Your task to perform on an android device: delete a single message in the gmail app Image 0: 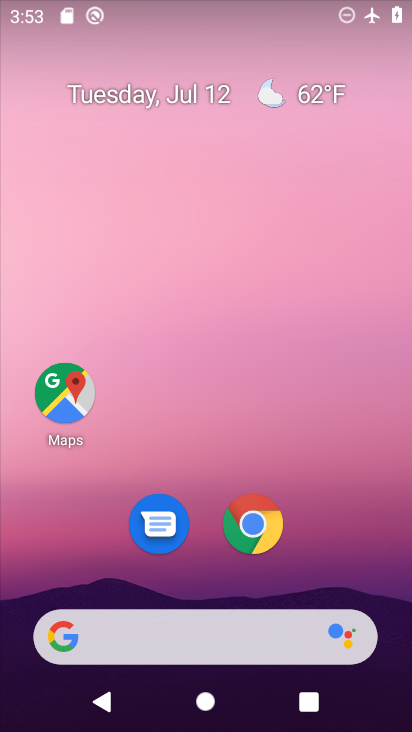
Step 0: drag from (327, 521) to (279, 0)
Your task to perform on an android device: delete a single message in the gmail app Image 1: 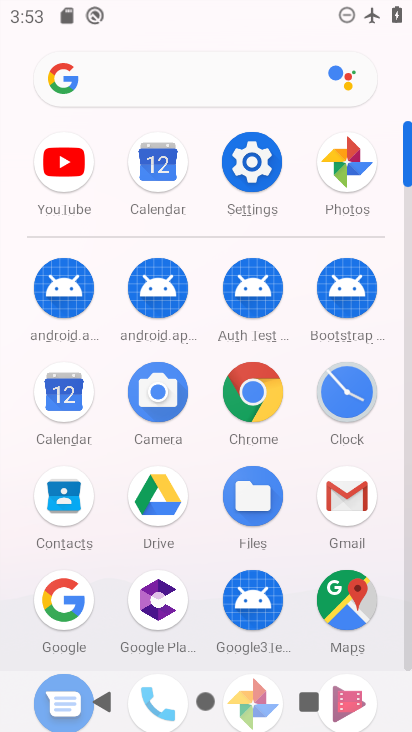
Step 1: click (350, 495)
Your task to perform on an android device: delete a single message in the gmail app Image 2: 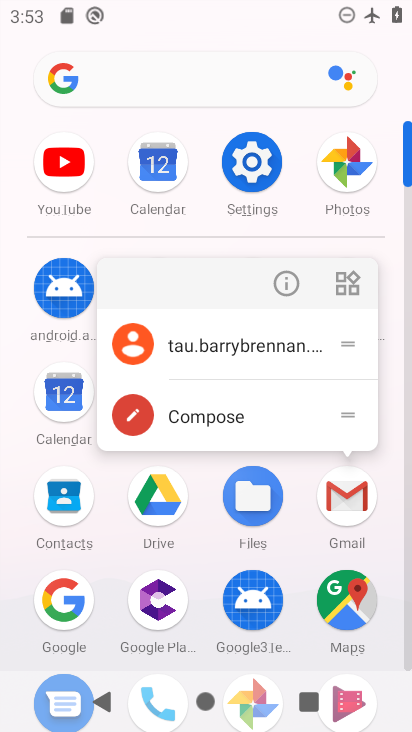
Step 2: click (350, 493)
Your task to perform on an android device: delete a single message in the gmail app Image 3: 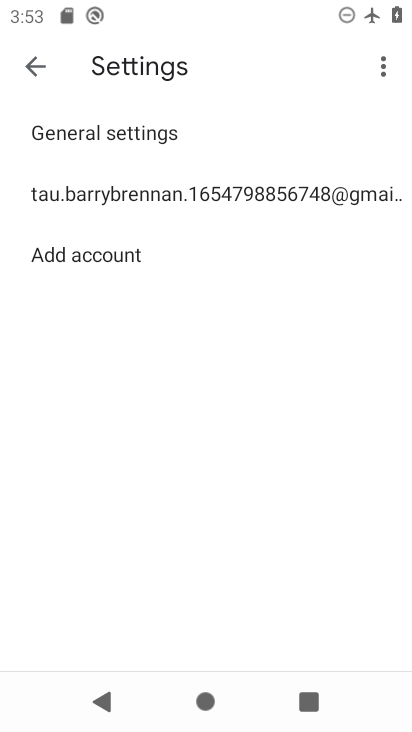
Step 3: click (35, 61)
Your task to perform on an android device: delete a single message in the gmail app Image 4: 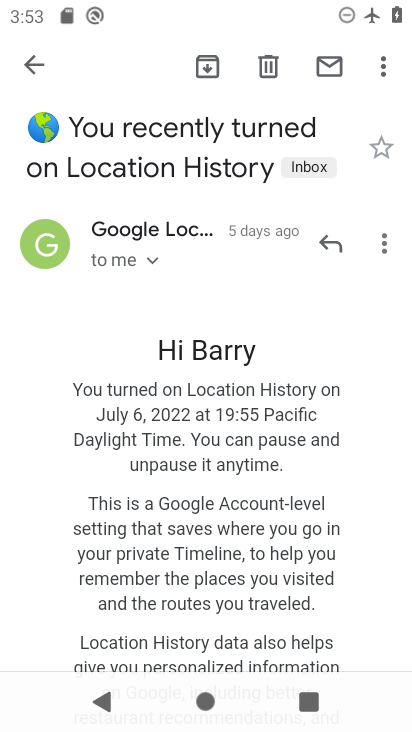
Step 4: click (35, 64)
Your task to perform on an android device: delete a single message in the gmail app Image 5: 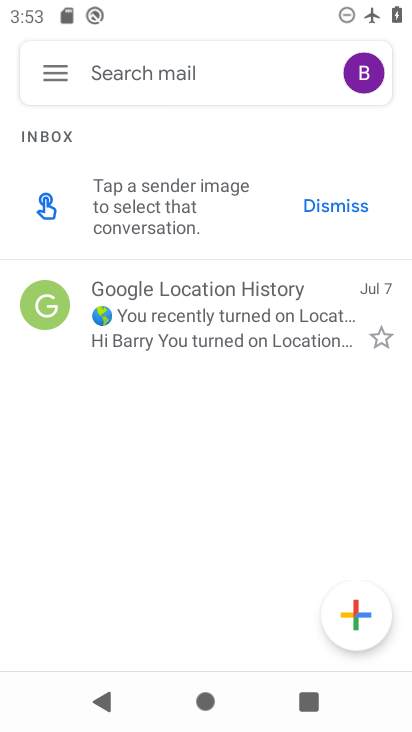
Step 5: click (173, 299)
Your task to perform on an android device: delete a single message in the gmail app Image 6: 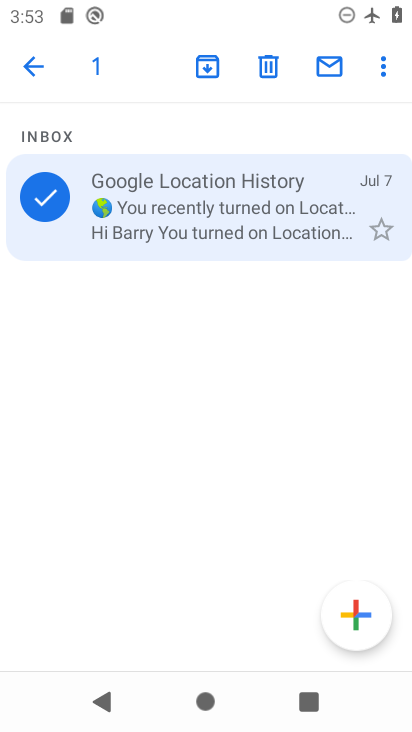
Step 6: click (261, 61)
Your task to perform on an android device: delete a single message in the gmail app Image 7: 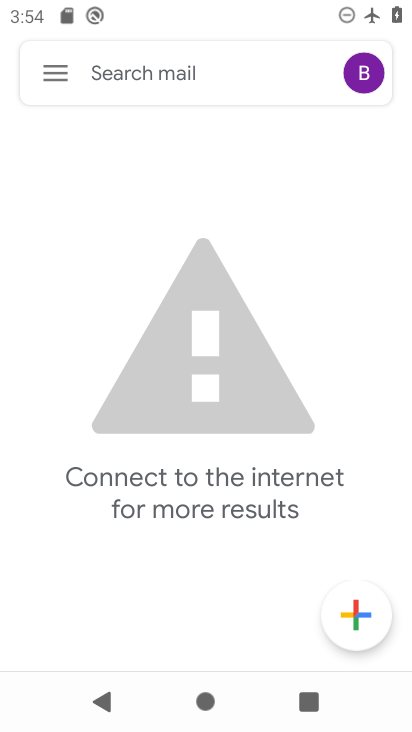
Step 7: task complete